Your task to perform on an android device: Go to sound settings Image 0: 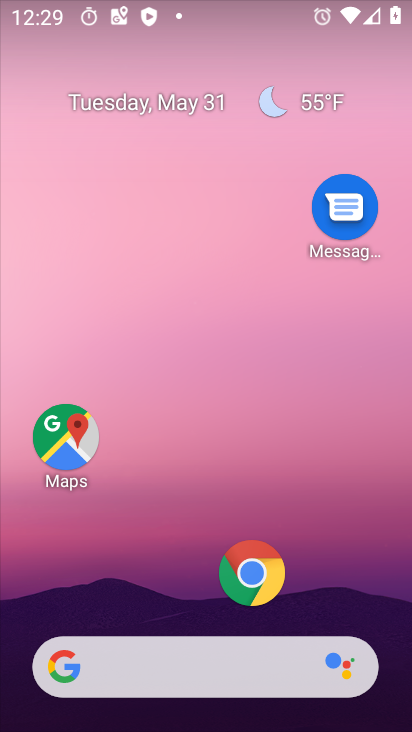
Step 0: drag from (163, 596) to (162, 33)
Your task to perform on an android device: Go to sound settings Image 1: 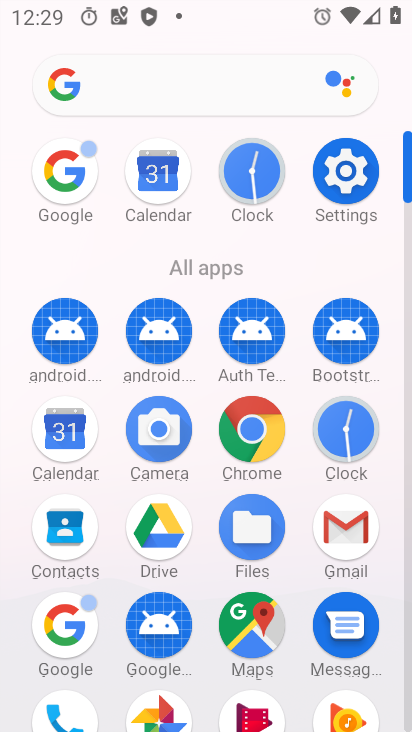
Step 1: click (358, 168)
Your task to perform on an android device: Go to sound settings Image 2: 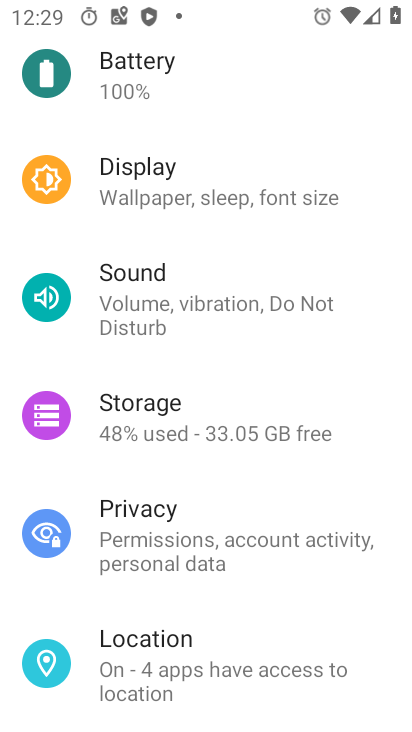
Step 2: click (192, 280)
Your task to perform on an android device: Go to sound settings Image 3: 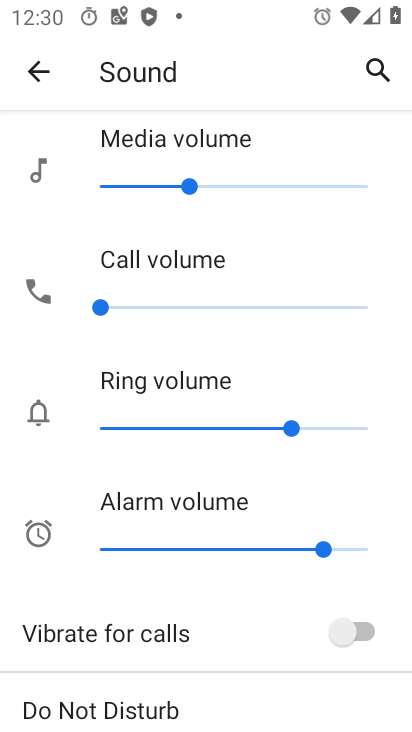
Step 3: task complete